Your task to perform on an android device: Go to eBay Image 0: 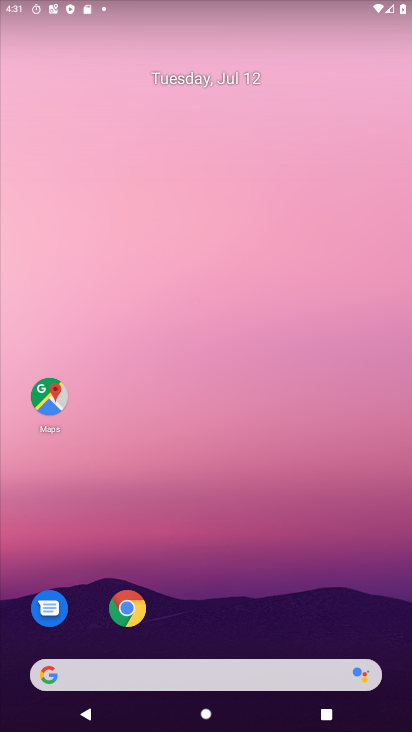
Step 0: click (132, 612)
Your task to perform on an android device: Go to eBay Image 1: 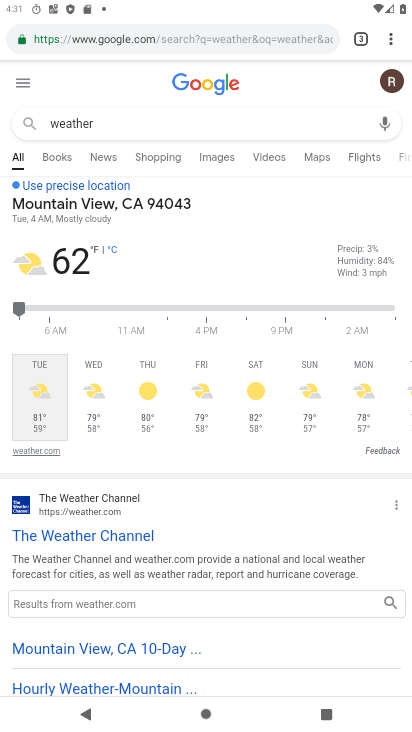
Step 1: click (365, 41)
Your task to perform on an android device: Go to eBay Image 2: 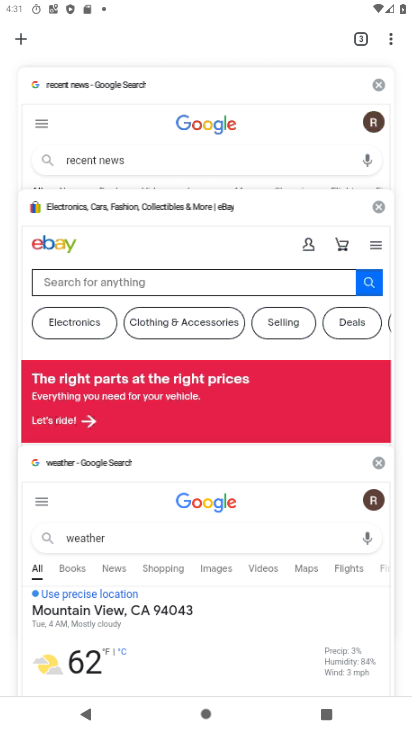
Step 2: click (104, 243)
Your task to perform on an android device: Go to eBay Image 3: 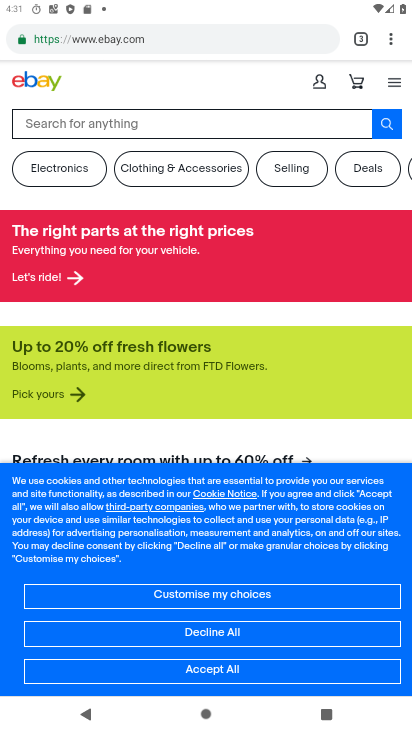
Step 3: task complete